Your task to perform on an android device: set the timer Image 0: 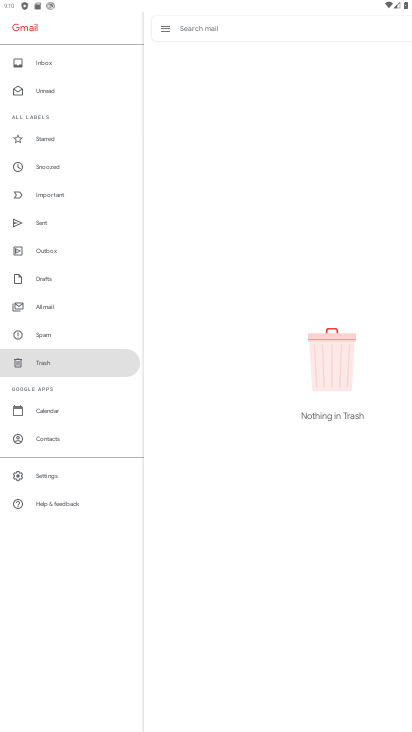
Step 0: press home button
Your task to perform on an android device: set the timer Image 1: 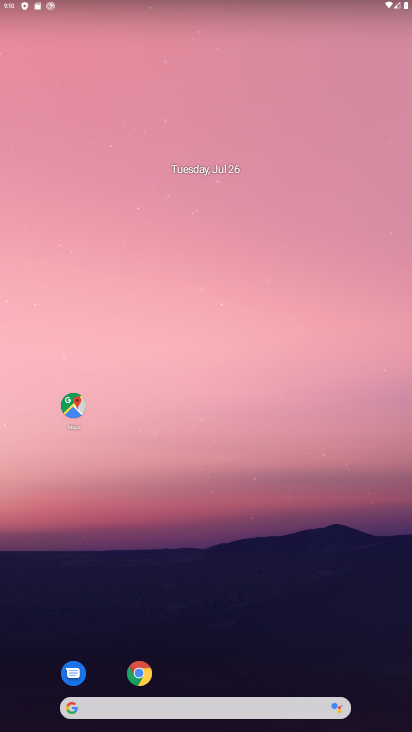
Step 1: drag from (176, 710) to (280, 140)
Your task to perform on an android device: set the timer Image 2: 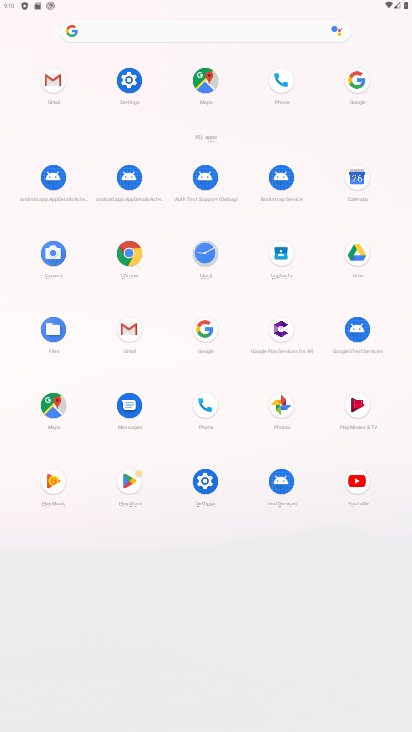
Step 2: click (206, 255)
Your task to perform on an android device: set the timer Image 3: 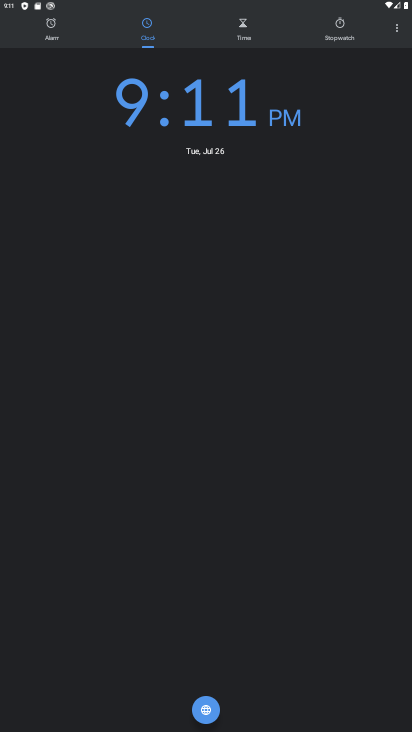
Step 3: click (244, 27)
Your task to perform on an android device: set the timer Image 4: 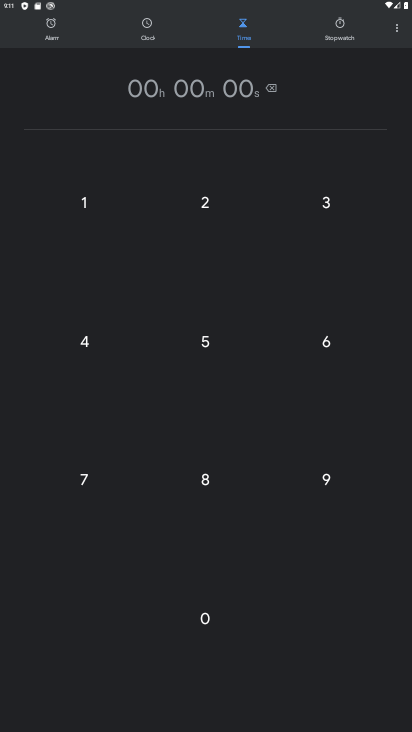
Step 4: type "1369"
Your task to perform on an android device: set the timer Image 5: 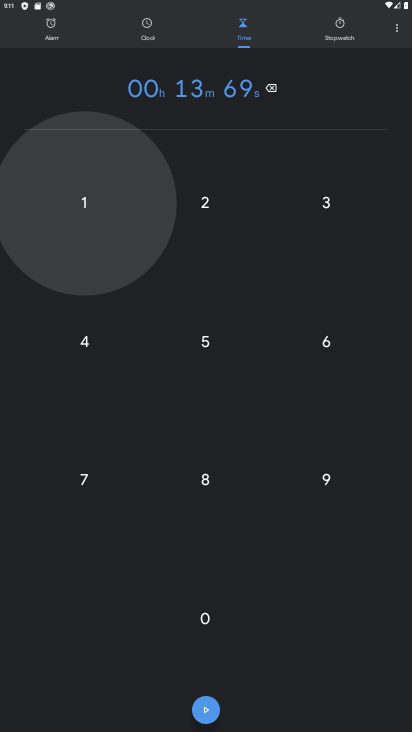
Step 5: click (211, 709)
Your task to perform on an android device: set the timer Image 6: 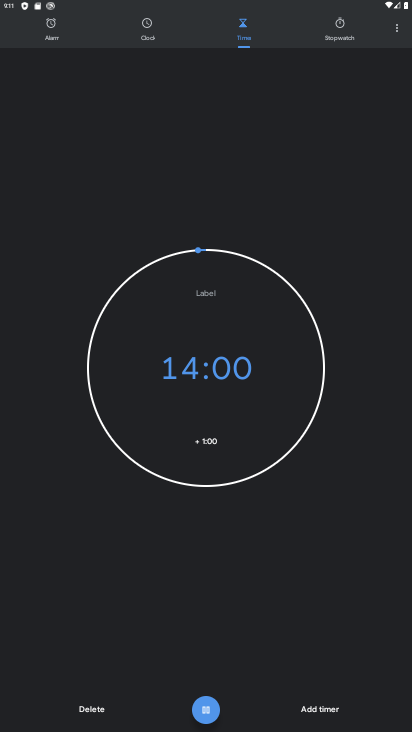
Step 6: click (211, 709)
Your task to perform on an android device: set the timer Image 7: 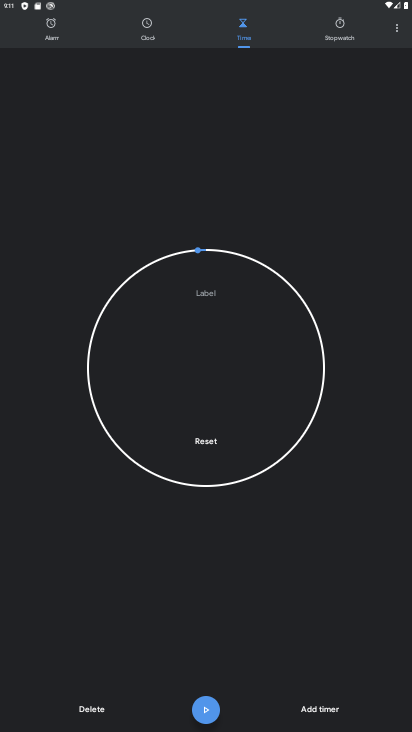
Step 7: task complete